Your task to perform on an android device: Go to Yahoo.com Image 0: 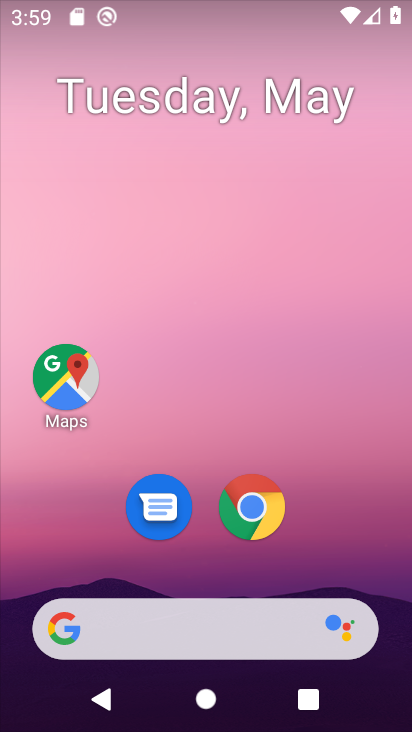
Step 0: click (261, 503)
Your task to perform on an android device: Go to Yahoo.com Image 1: 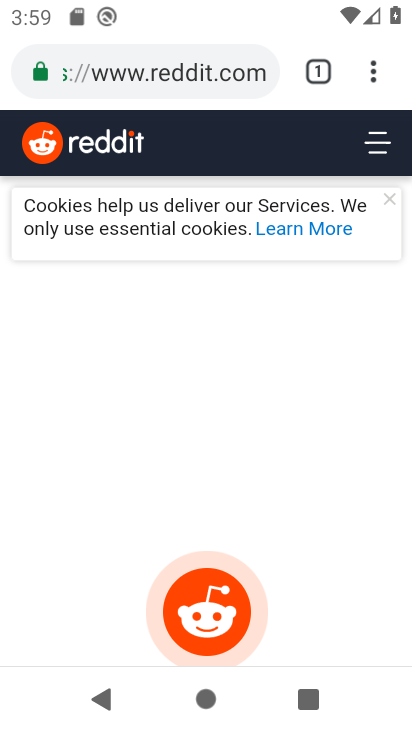
Step 1: click (243, 77)
Your task to perform on an android device: Go to Yahoo.com Image 2: 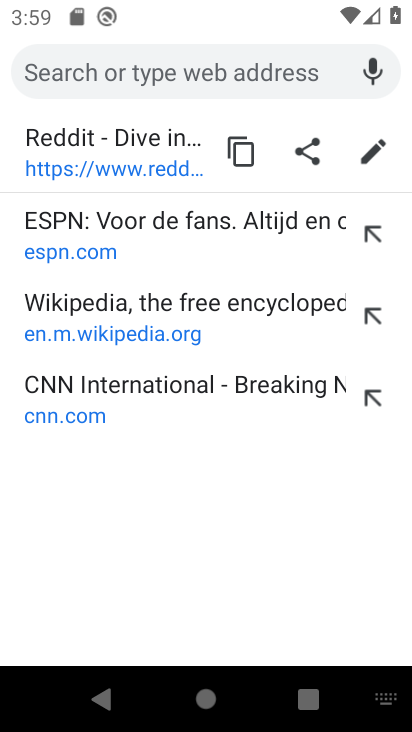
Step 2: type "yahoo.com"
Your task to perform on an android device: Go to Yahoo.com Image 3: 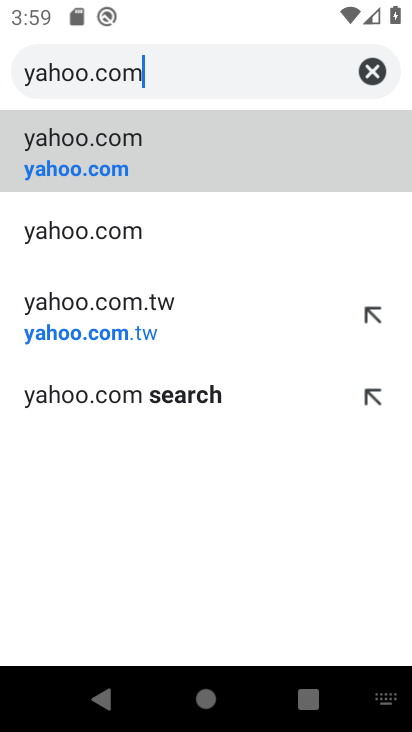
Step 3: click (45, 144)
Your task to perform on an android device: Go to Yahoo.com Image 4: 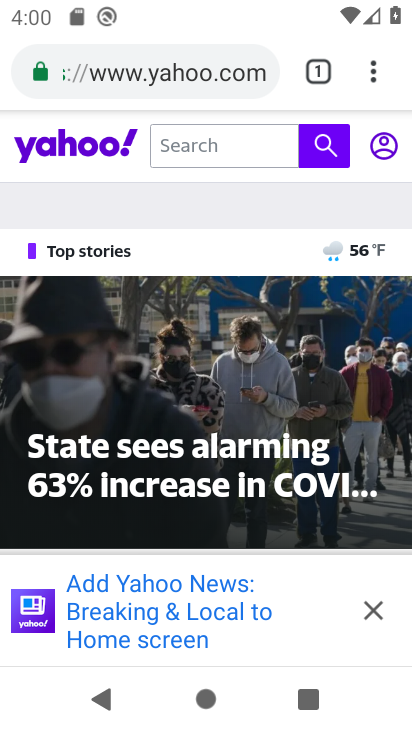
Step 4: task complete